Your task to perform on an android device: remove spam from my inbox in the gmail app Image 0: 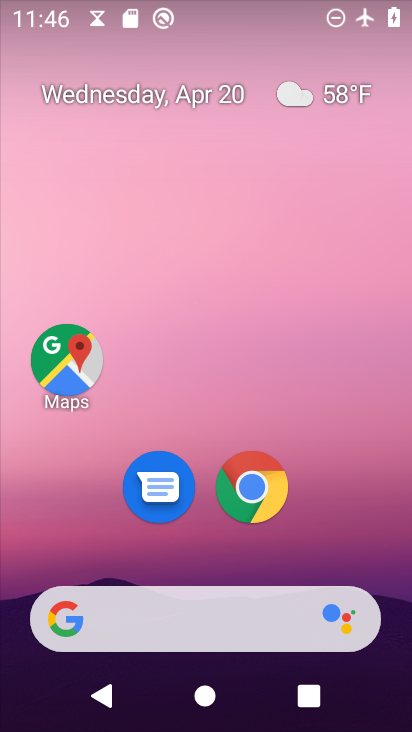
Step 0: drag from (326, 525) to (274, 20)
Your task to perform on an android device: remove spam from my inbox in the gmail app Image 1: 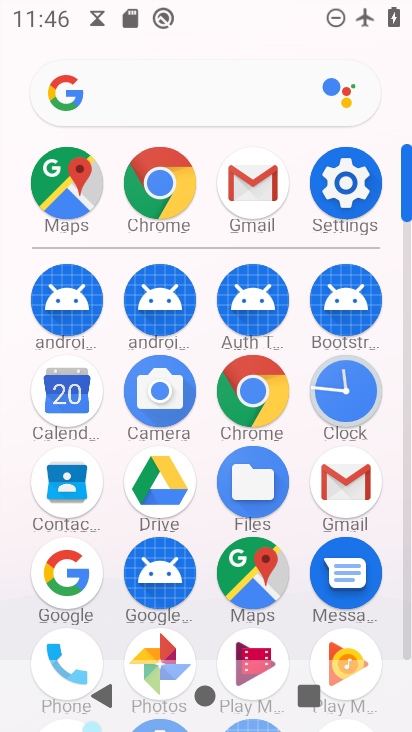
Step 1: drag from (8, 504) to (5, 288)
Your task to perform on an android device: remove spam from my inbox in the gmail app Image 2: 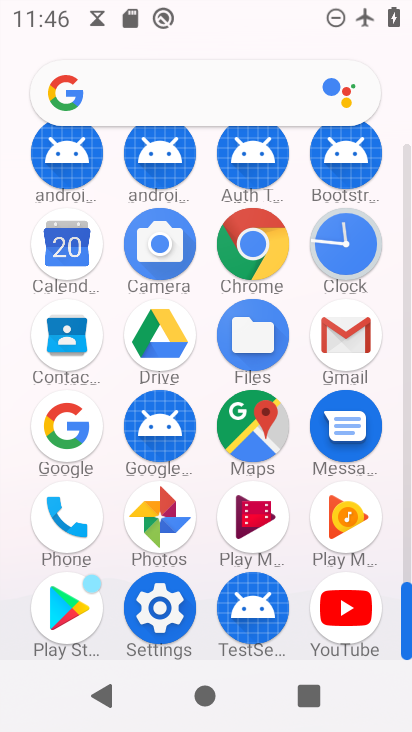
Step 2: click (347, 330)
Your task to perform on an android device: remove spam from my inbox in the gmail app Image 3: 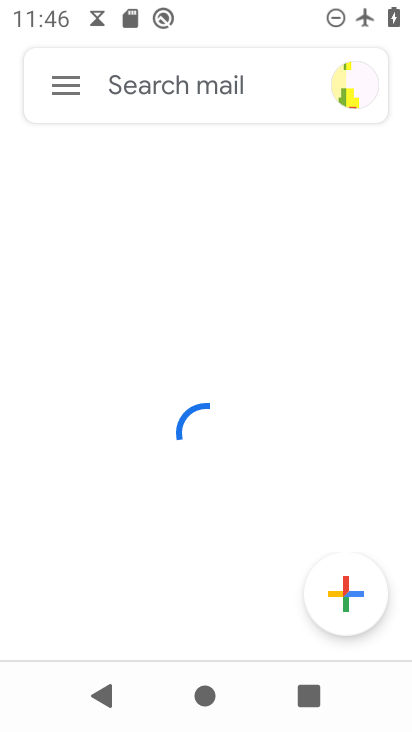
Step 3: click (261, 79)
Your task to perform on an android device: remove spam from my inbox in the gmail app Image 4: 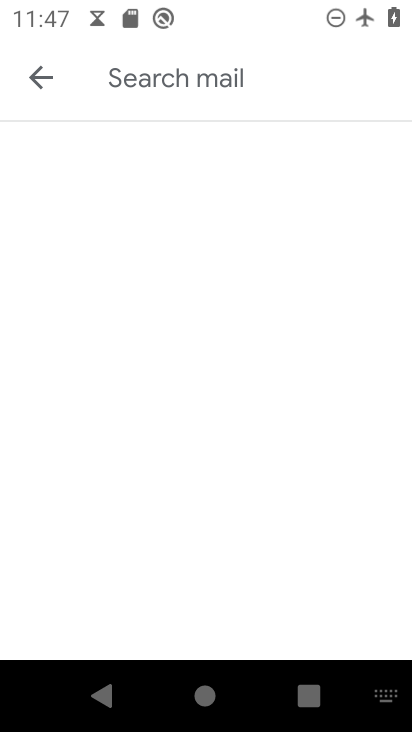
Step 4: click (14, 67)
Your task to perform on an android device: remove spam from my inbox in the gmail app Image 5: 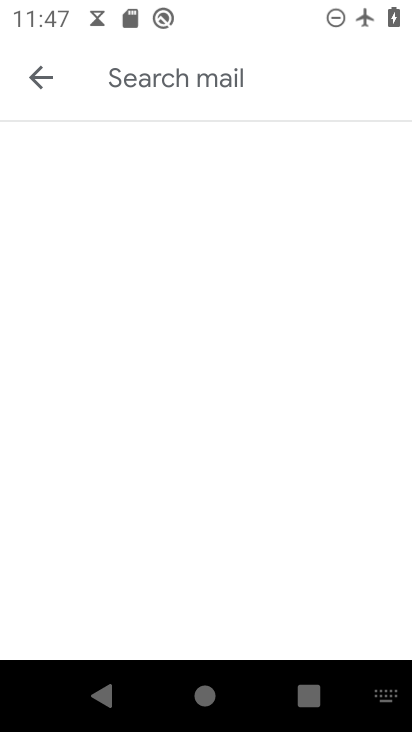
Step 5: click (27, 63)
Your task to perform on an android device: remove spam from my inbox in the gmail app Image 6: 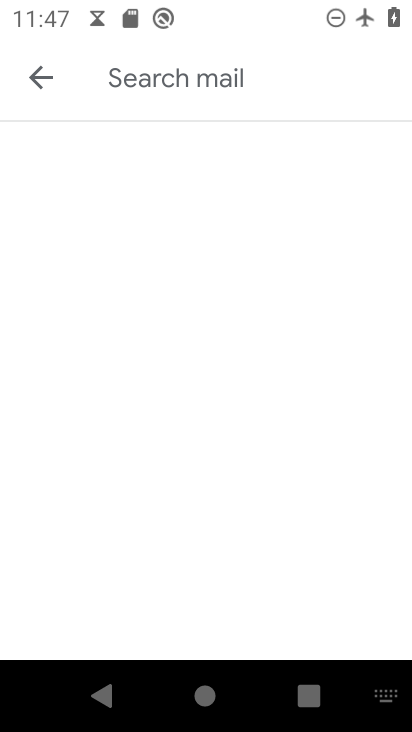
Step 6: click (50, 80)
Your task to perform on an android device: remove spam from my inbox in the gmail app Image 7: 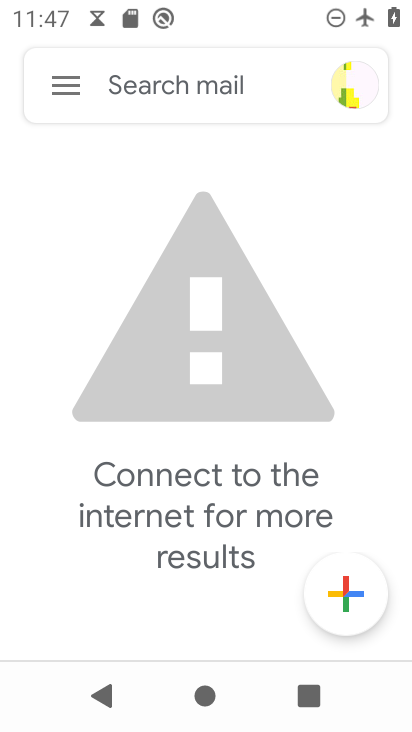
Step 7: click (60, 89)
Your task to perform on an android device: remove spam from my inbox in the gmail app Image 8: 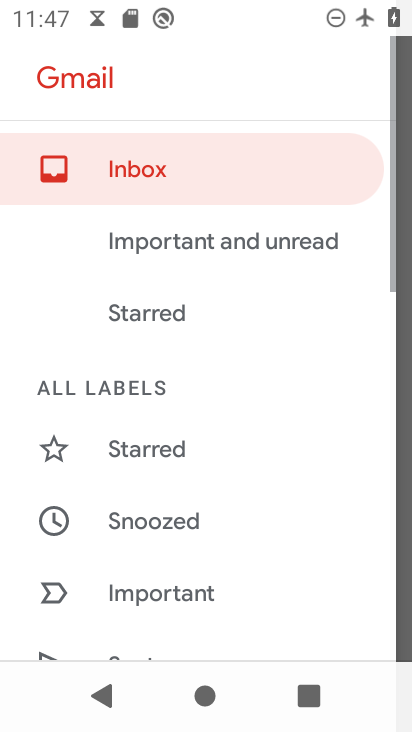
Step 8: drag from (197, 523) to (231, 112)
Your task to perform on an android device: remove spam from my inbox in the gmail app Image 9: 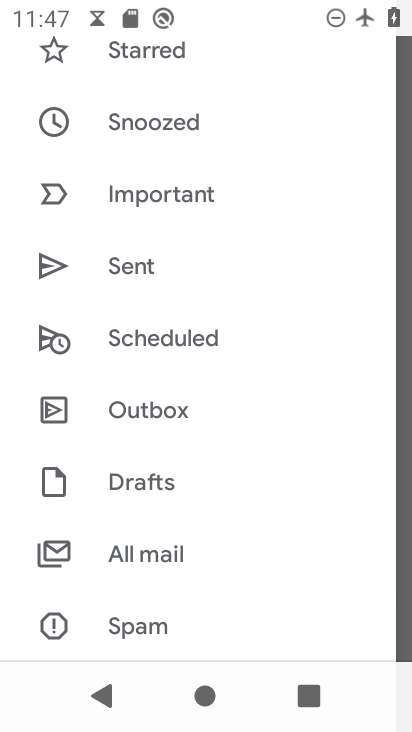
Step 9: drag from (205, 602) to (225, 260)
Your task to perform on an android device: remove spam from my inbox in the gmail app Image 10: 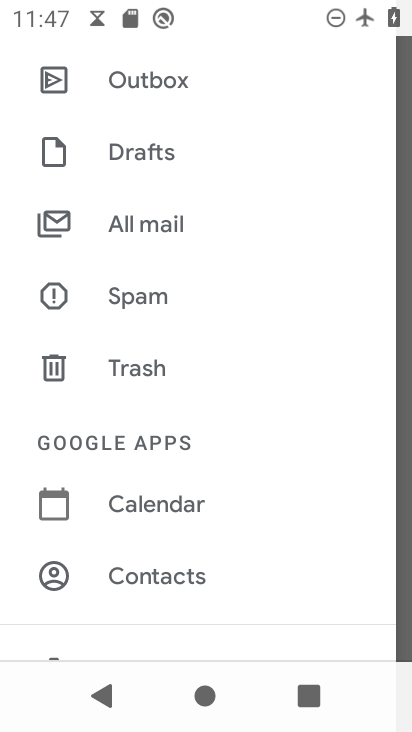
Step 10: click (153, 287)
Your task to perform on an android device: remove spam from my inbox in the gmail app Image 11: 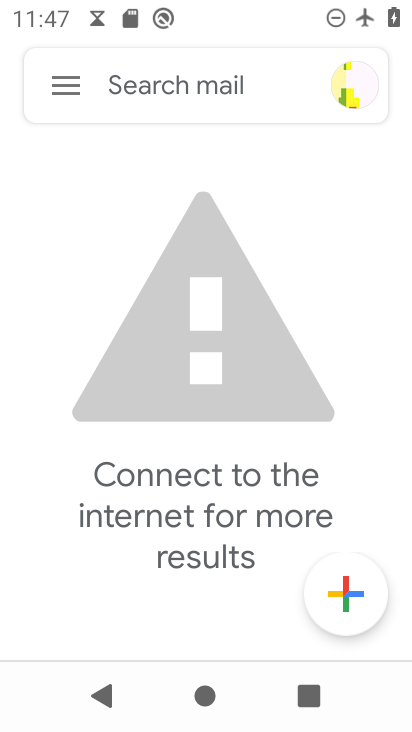
Step 11: click (63, 84)
Your task to perform on an android device: remove spam from my inbox in the gmail app Image 12: 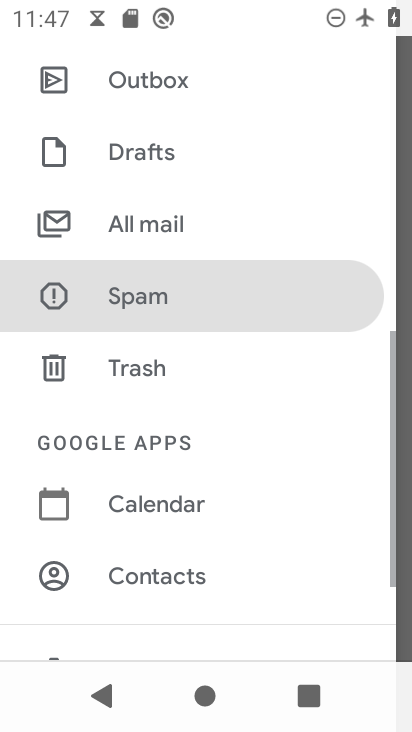
Step 12: drag from (222, 520) to (210, 224)
Your task to perform on an android device: remove spam from my inbox in the gmail app Image 13: 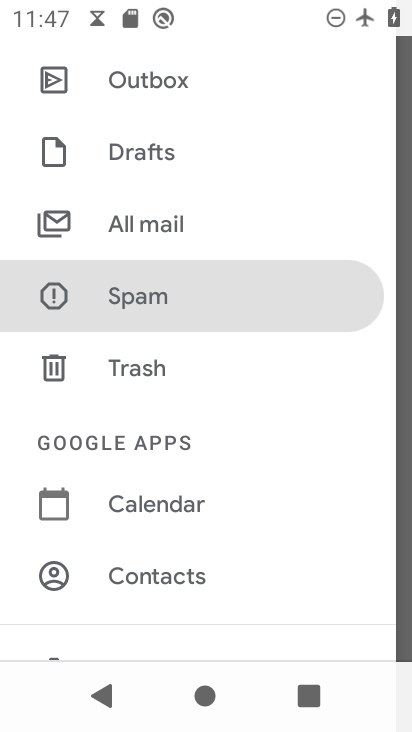
Step 13: click (174, 303)
Your task to perform on an android device: remove spam from my inbox in the gmail app Image 14: 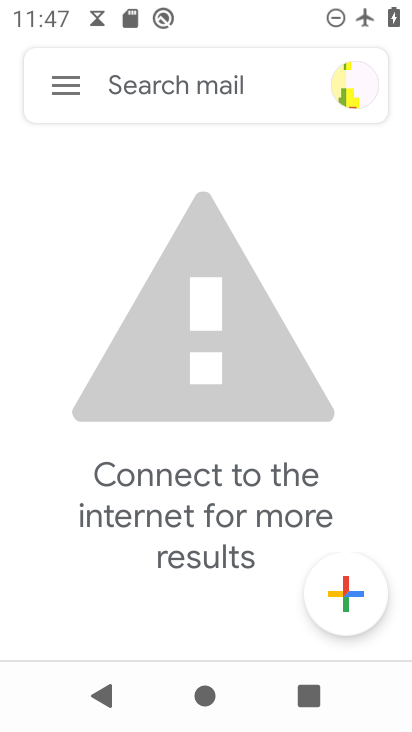
Step 14: task complete